Your task to perform on an android device: Play the last video I watched on Youtube Image 0: 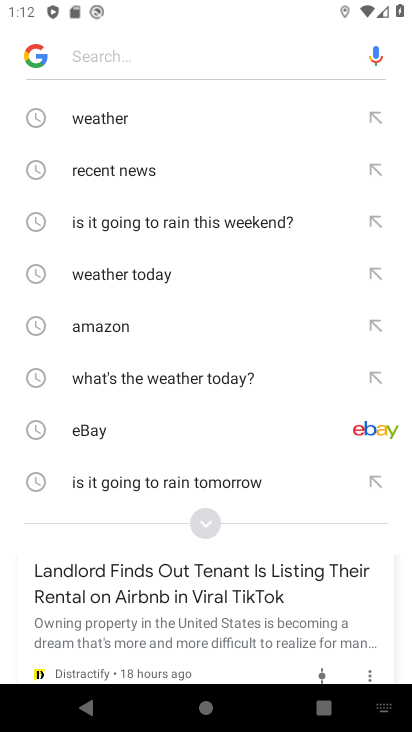
Step 0: press home button
Your task to perform on an android device: Play the last video I watched on Youtube Image 1: 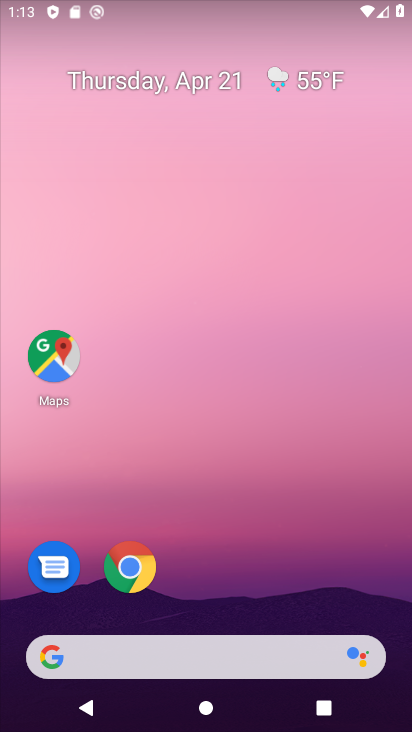
Step 1: drag from (229, 624) to (212, 4)
Your task to perform on an android device: Play the last video I watched on Youtube Image 2: 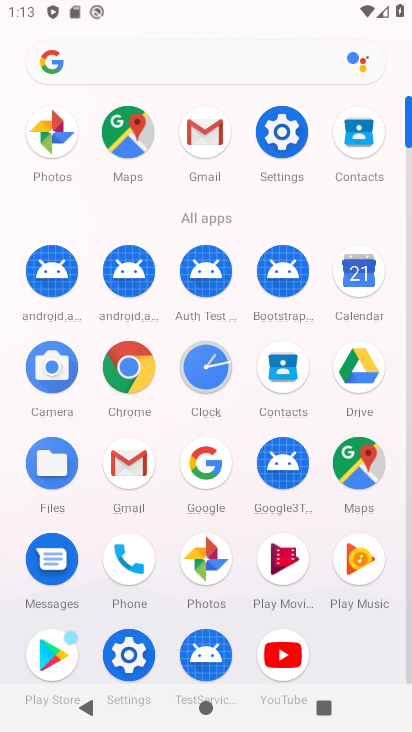
Step 2: click (281, 649)
Your task to perform on an android device: Play the last video I watched on Youtube Image 3: 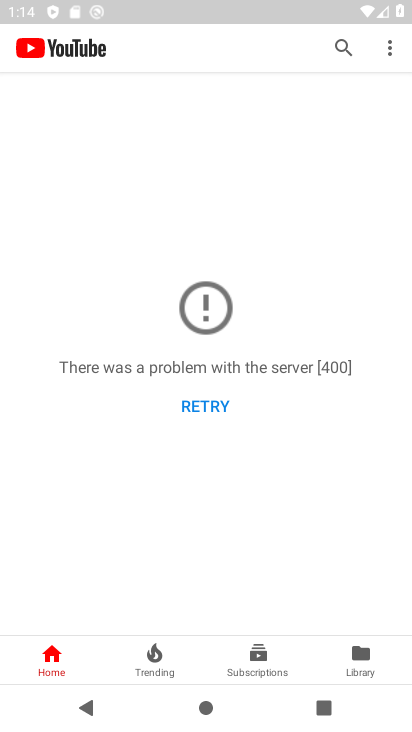
Step 3: click (360, 653)
Your task to perform on an android device: Play the last video I watched on Youtube Image 4: 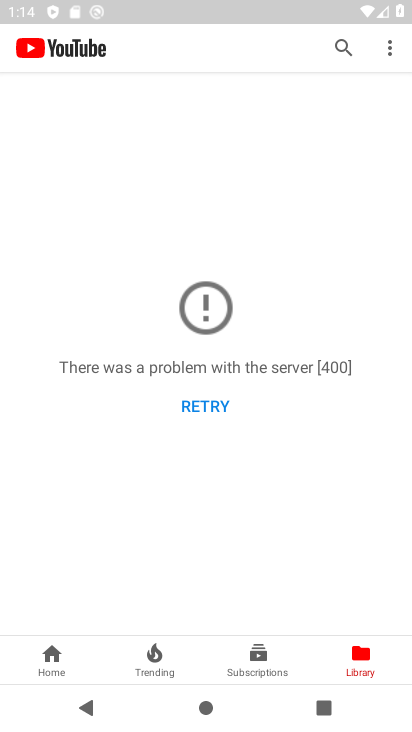
Step 4: task complete